Your task to perform on an android device: open a bookmark in the chrome app Image 0: 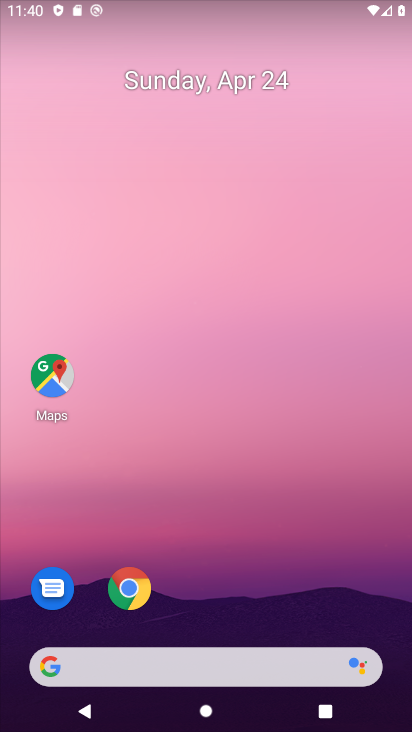
Step 0: drag from (199, 622) to (375, 34)
Your task to perform on an android device: open a bookmark in the chrome app Image 1: 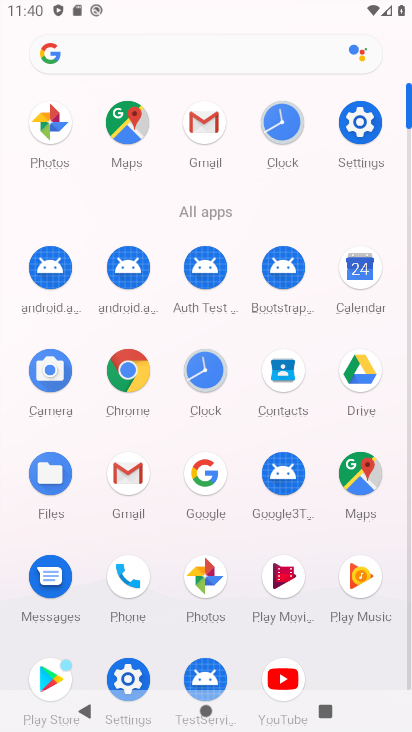
Step 1: click (131, 378)
Your task to perform on an android device: open a bookmark in the chrome app Image 2: 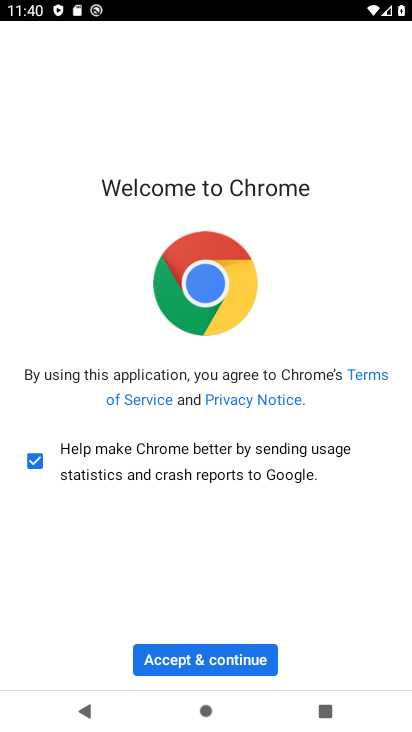
Step 2: click (187, 659)
Your task to perform on an android device: open a bookmark in the chrome app Image 3: 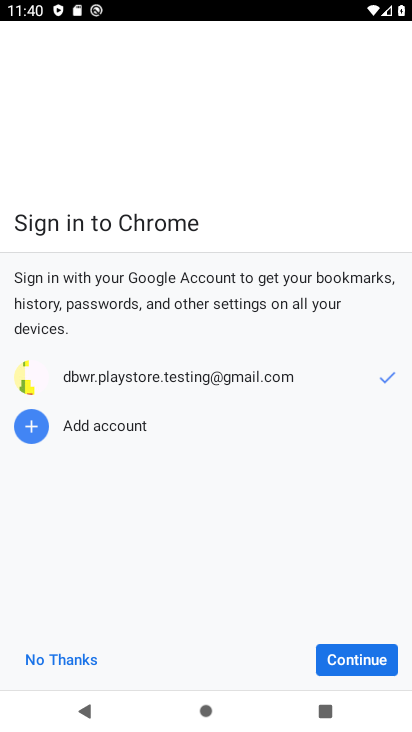
Step 3: click (336, 660)
Your task to perform on an android device: open a bookmark in the chrome app Image 4: 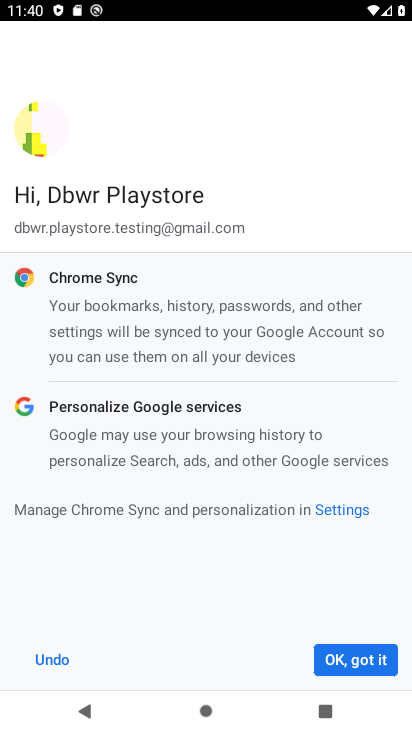
Step 4: click (343, 651)
Your task to perform on an android device: open a bookmark in the chrome app Image 5: 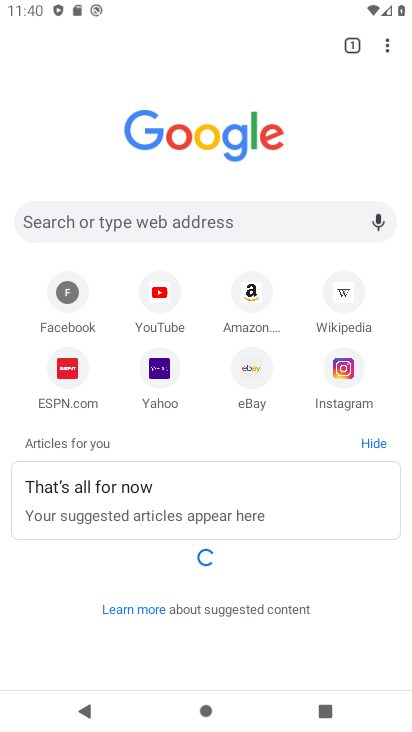
Step 5: task complete